Your task to perform on an android device: Open calendar and show me the third week of next month Image 0: 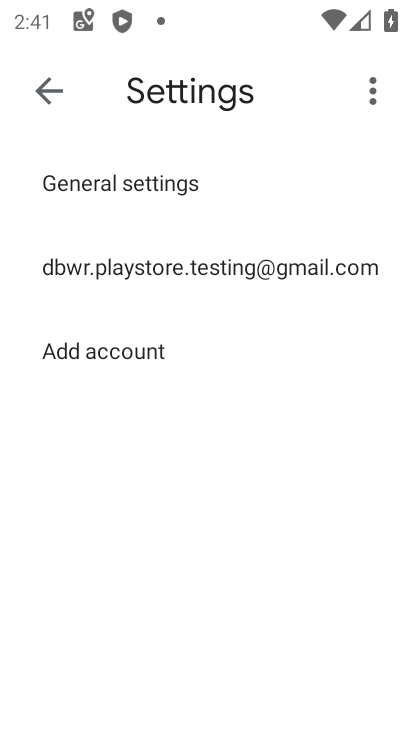
Step 0: press home button
Your task to perform on an android device: Open calendar and show me the third week of next month Image 1: 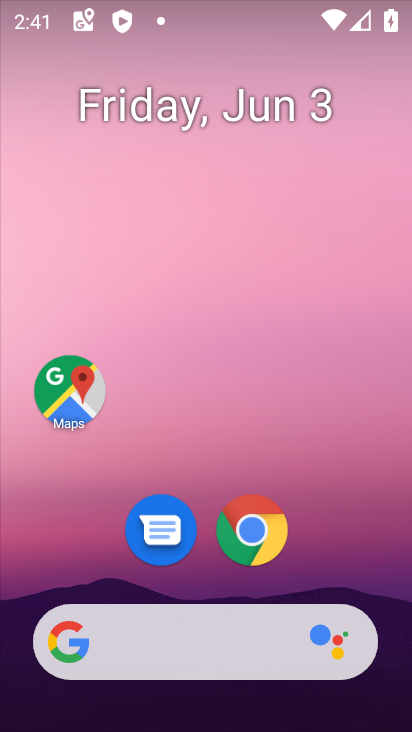
Step 1: drag from (224, 236) to (214, 197)
Your task to perform on an android device: Open calendar and show me the third week of next month Image 2: 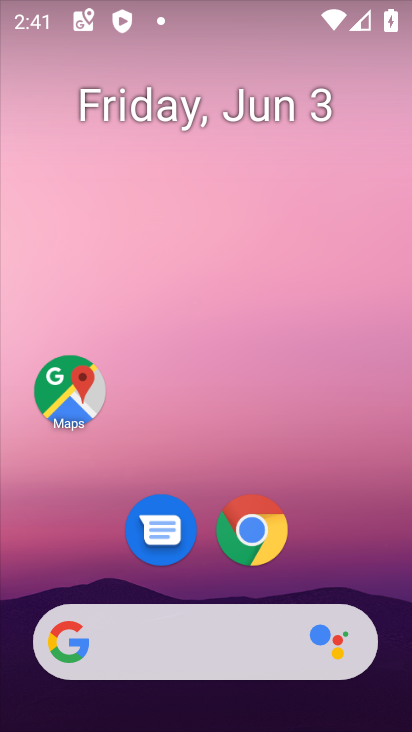
Step 2: drag from (303, 474) to (197, 80)
Your task to perform on an android device: Open calendar and show me the third week of next month Image 3: 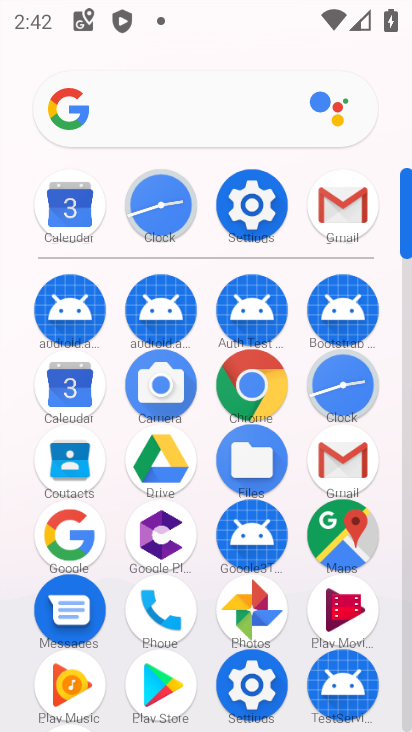
Step 3: click (72, 391)
Your task to perform on an android device: Open calendar and show me the third week of next month Image 4: 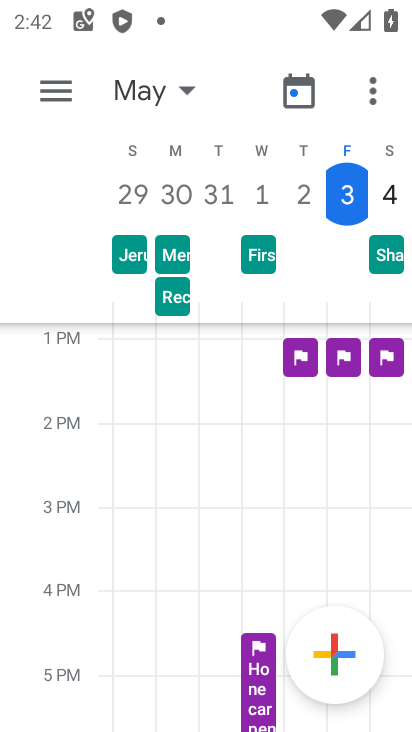
Step 4: click (180, 85)
Your task to perform on an android device: Open calendar and show me the third week of next month Image 5: 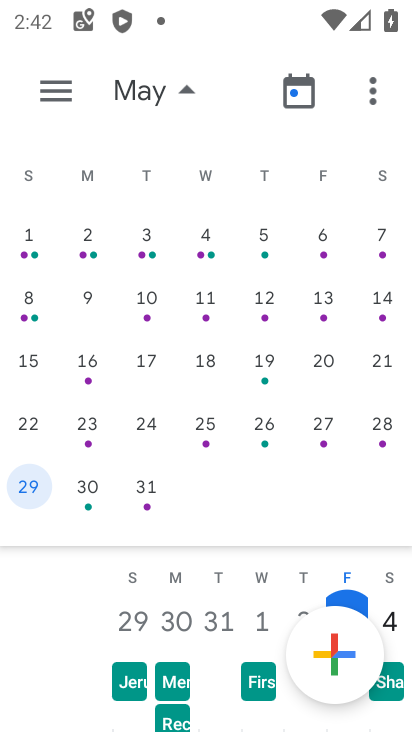
Step 5: drag from (349, 275) to (170, 321)
Your task to perform on an android device: Open calendar and show me the third week of next month Image 6: 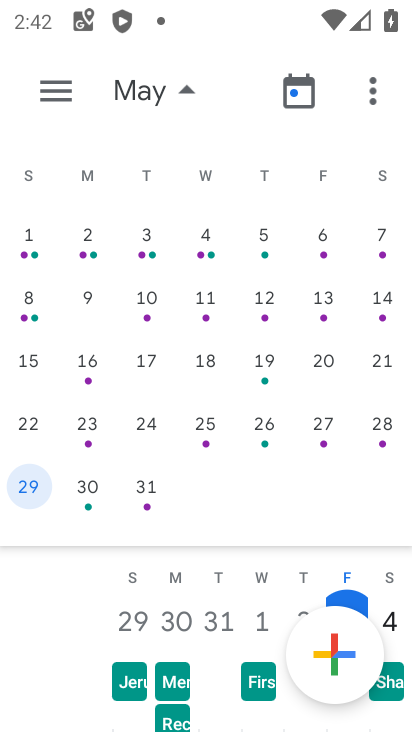
Step 6: drag from (343, 299) to (76, 262)
Your task to perform on an android device: Open calendar and show me the third week of next month Image 7: 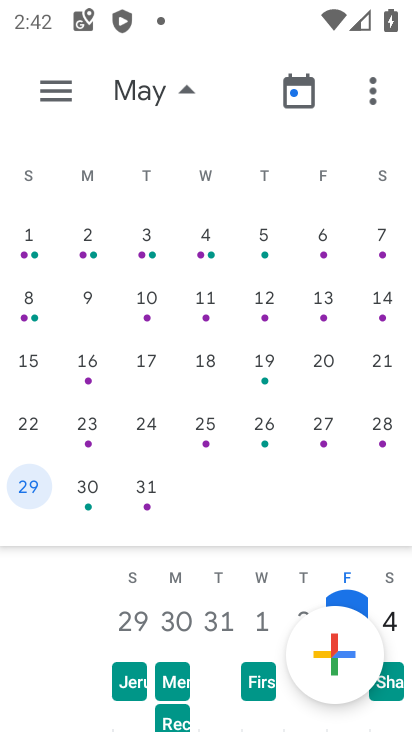
Step 7: drag from (379, 291) to (17, 336)
Your task to perform on an android device: Open calendar and show me the third week of next month Image 8: 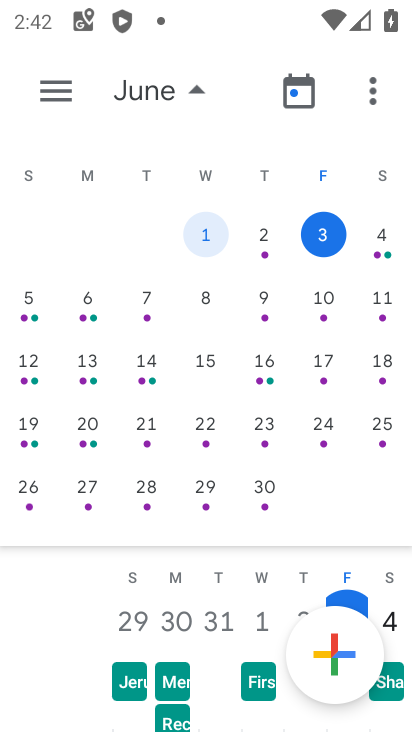
Step 8: drag from (360, 294) to (4, 339)
Your task to perform on an android device: Open calendar and show me the third week of next month Image 9: 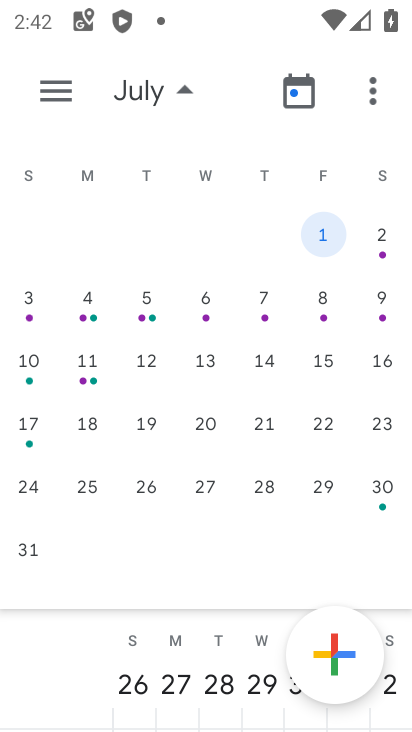
Step 9: click (271, 354)
Your task to perform on an android device: Open calendar and show me the third week of next month Image 10: 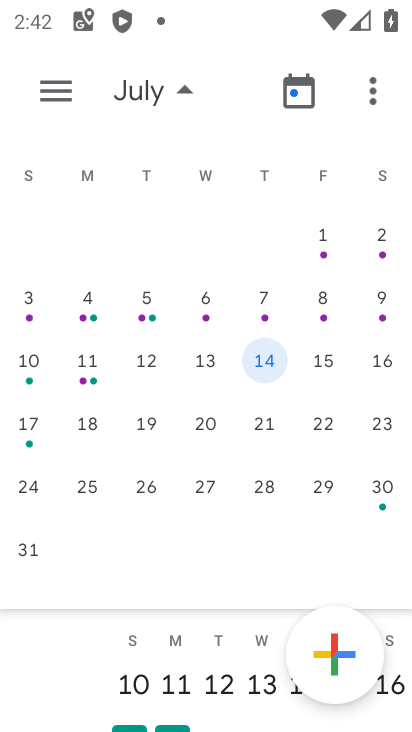
Step 10: task complete